Your task to perform on an android device: allow notifications from all sites in the chrome app Image 0: 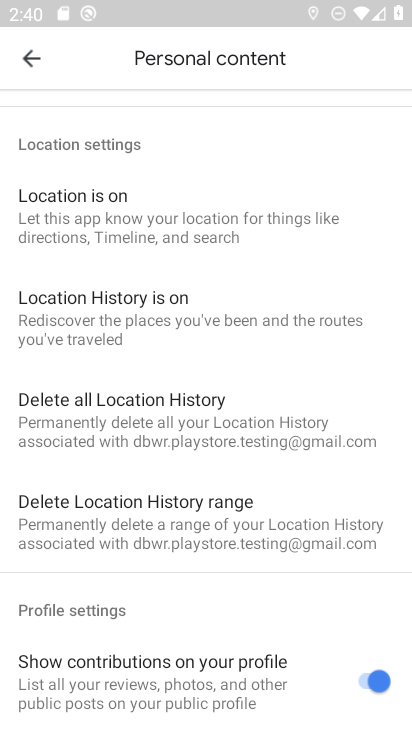
Step 0: drag from (151, 565) to (151, 243)
Your task to perform on an android device: allow notifications from all sites in the chrome app Image 1: 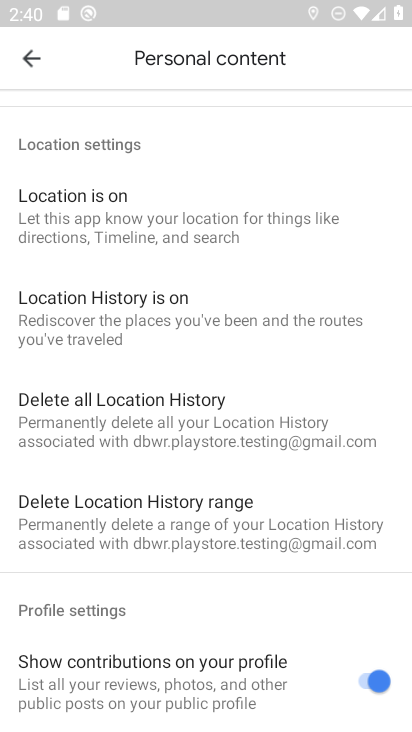
Step 1: press home button
Your task to perform on an android device: allow notifications from all sites in the chrome app Image 2: 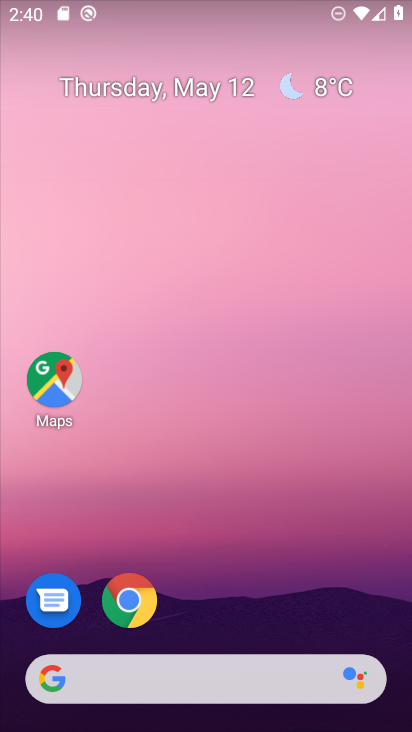
Step 2: click (128, 609)
Your task to perform on an android device: allow notifications from all sites in the chrome app Image 3: 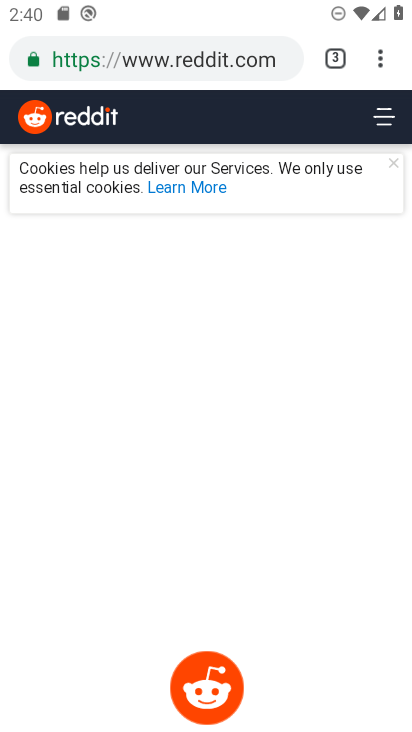
Step 3: click (379, 62)
Your task to perform on an android device: allow notifications from all sites in the chrome app Image 4: 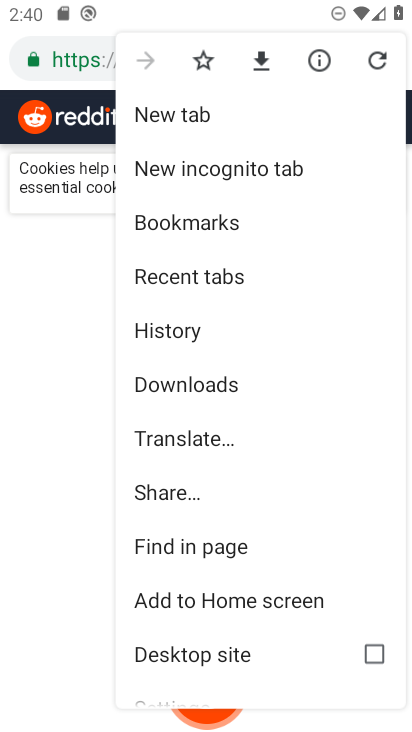
Step 4: drag from (201, 625) to (214, 293)
Your task to perform on an android device: allow notifications from all sites in the chrome app Image 5: 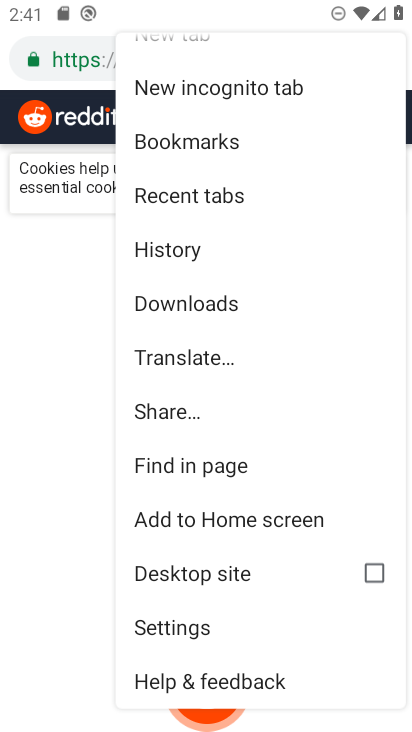
Step 5: click (174, 628)
Your task to perform on an android device: allow notifications from all sites in the chrome app Image 6: 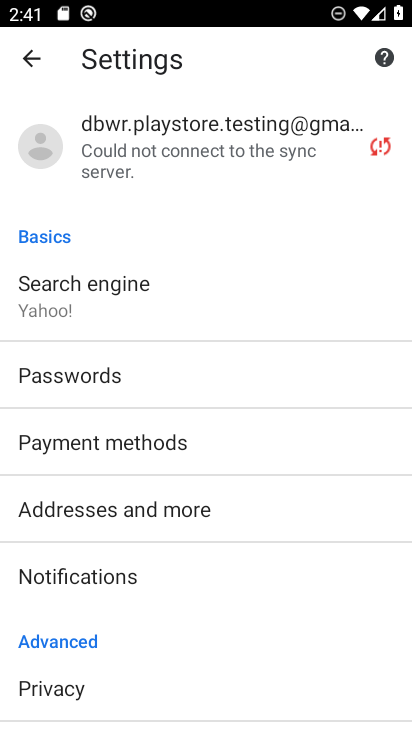
Step 6: drag from (185, 663) to (182, 241)
Your task to perform on an android device: allow notifications from all sites in the chrome app Image 7: 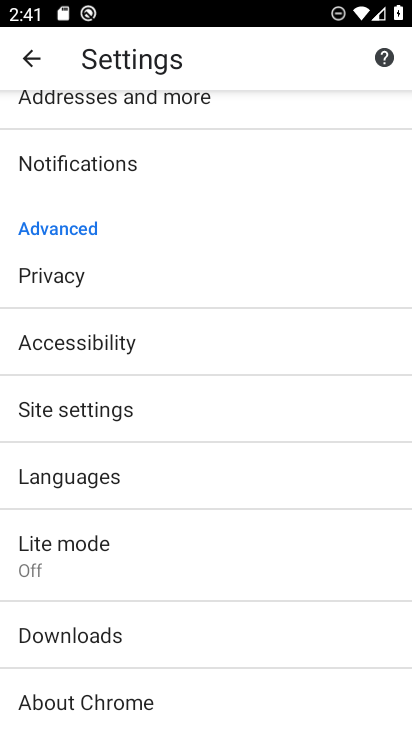
Step 7: click (81, 406)
Your task to perform on an android device: allow notifications from all sites in the chrome app Image 8: 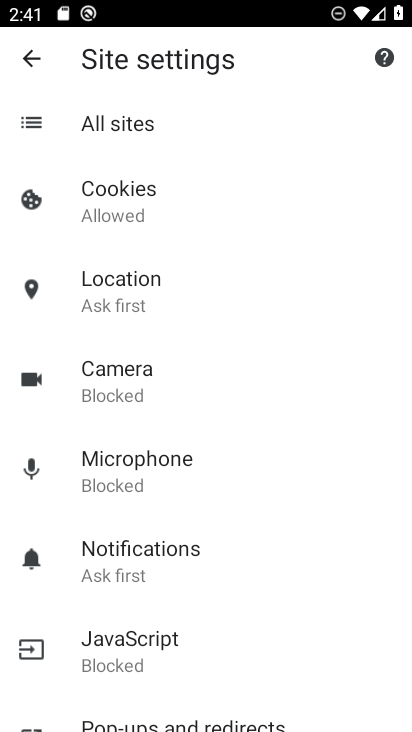
Step 8: click (111, 546)
Your task to perform on an android device: allow notifications from all sites in the chrome app Image 9: 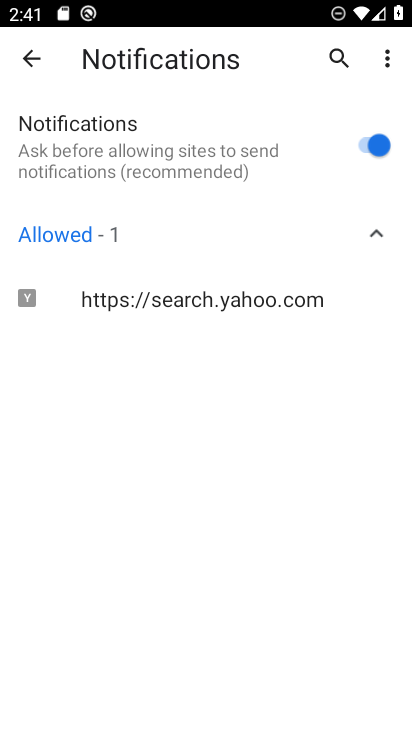
Step 9: task complete